Your task to perform on an android device: Add "dell alienware" to the cart on costco.com, then select checkout. Image 0: 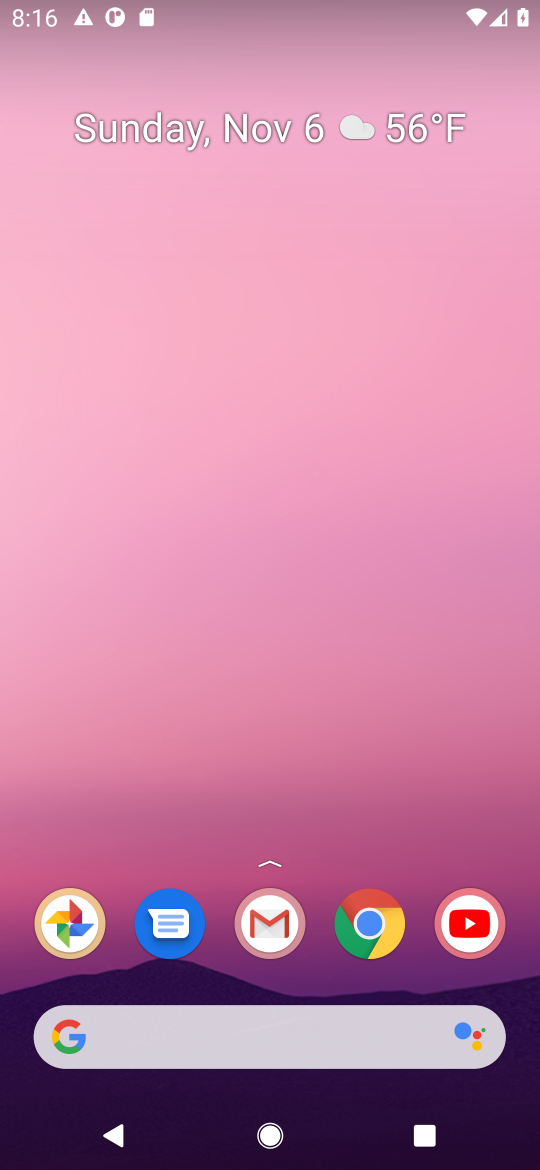
Step 0: click (375, 929)
Your task to perform on an android device: Add "dell alienware" to the cart on costco.com, then select checkout. Image 1: 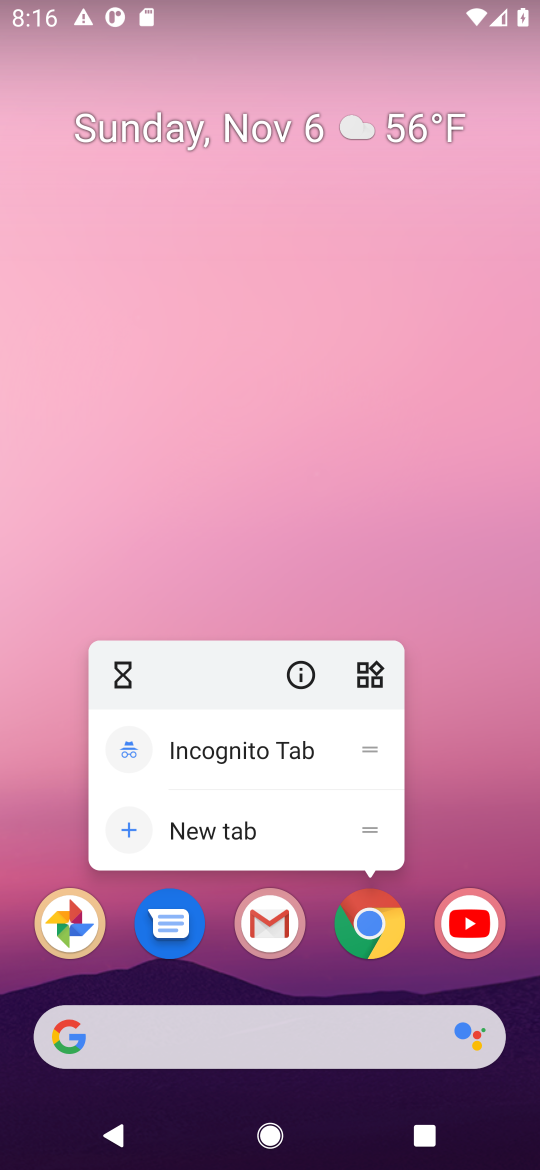
Step 1: click (375, 929)
Your task to perform on an android device: Add "dell alienware" to the cart on costco.com, then select checkout. Image 2: 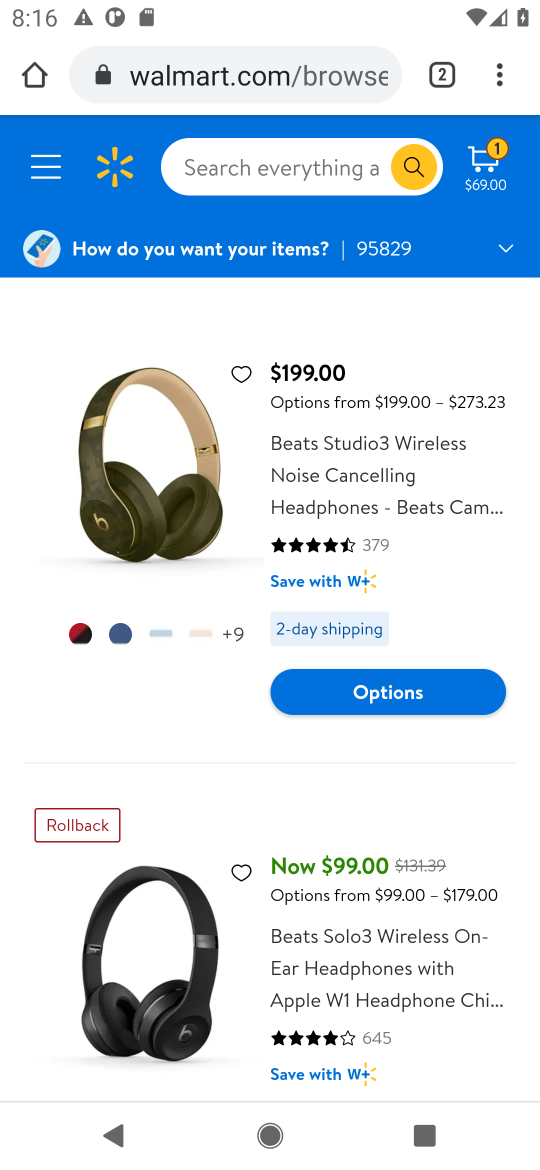
Step 2: click (237, 67)
Your task to perform on an android device: Add "dell alienware" to the cart on costco.com, then select checkout. Image 3: 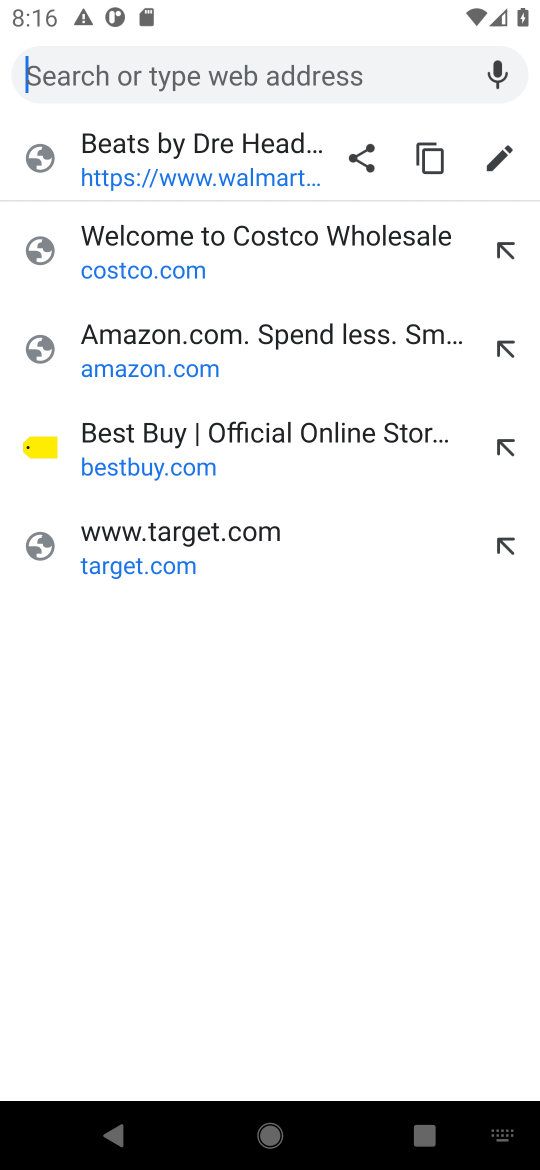
Step 3: click (179, 262)
Your task to perform on an android device: Add "dell alienware" to the cart on costco.com, then select checkout. Image 4: 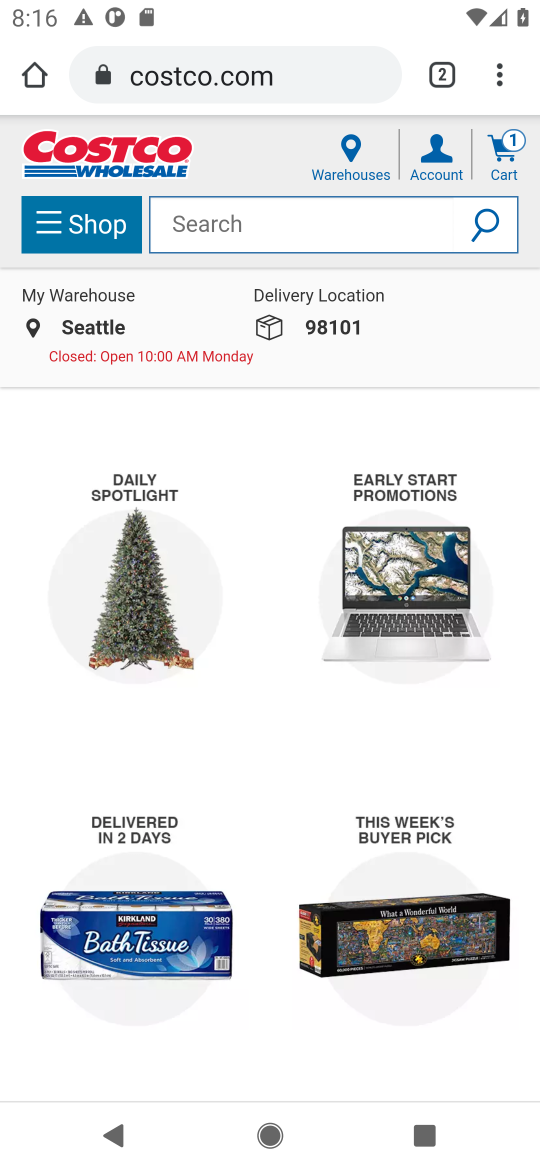
Step 4: click (206, 228)
Your task to perform on an android device: Add "dell alienware" to the cart on costco.com, then select checkout. Image 5: 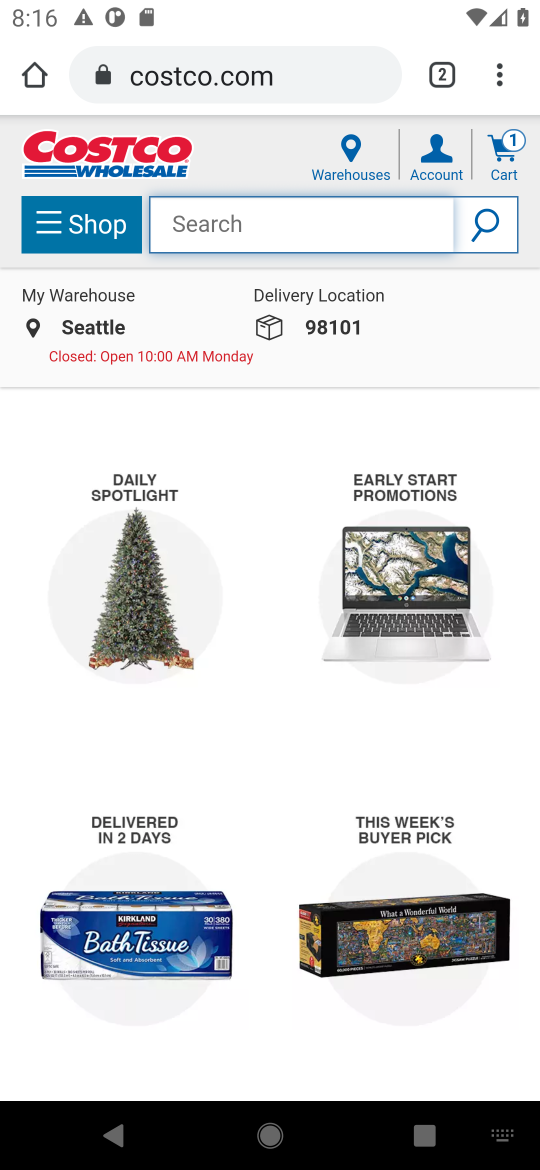
Step 5: type "dell alienware"
Your task to perform on an android device: Add "dell alienware" to the cart on costco.com, then select checkout. Image 6: 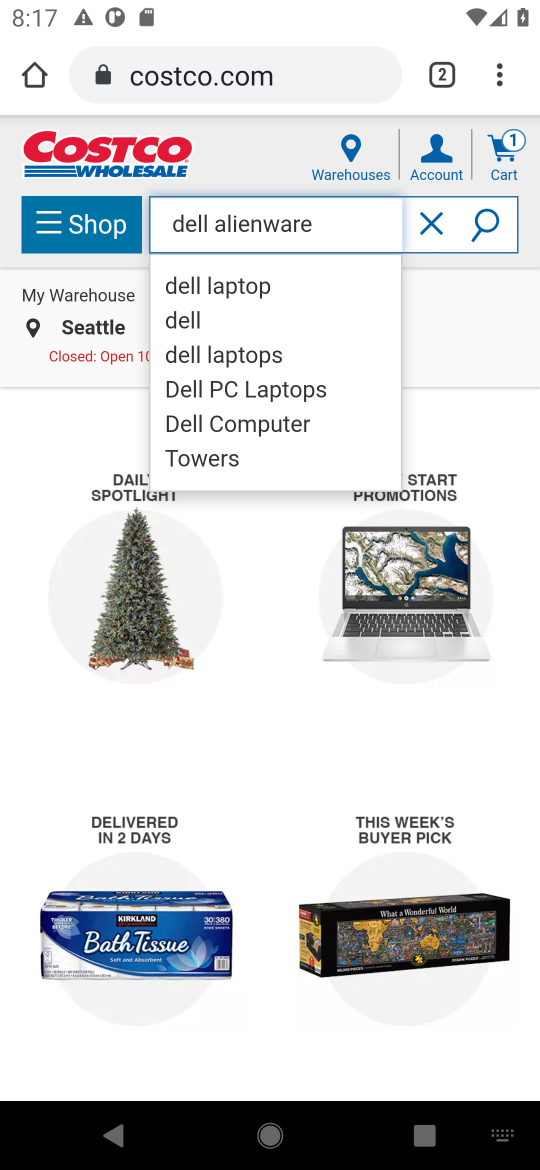
Step 6: click (481, 223)
Your task to perform on an android device: Add "dell alienware" to the cart on costco.com, then select checkout. Image 7: 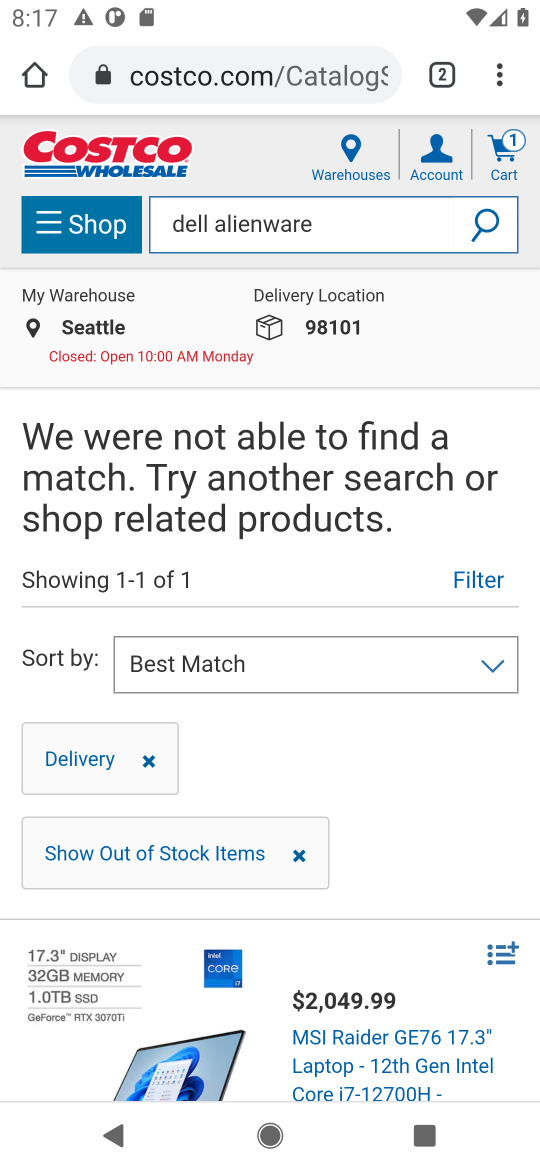
Step 7: task complete